Your task to perform on an android device: Open Maps and search for coffee Image 0: 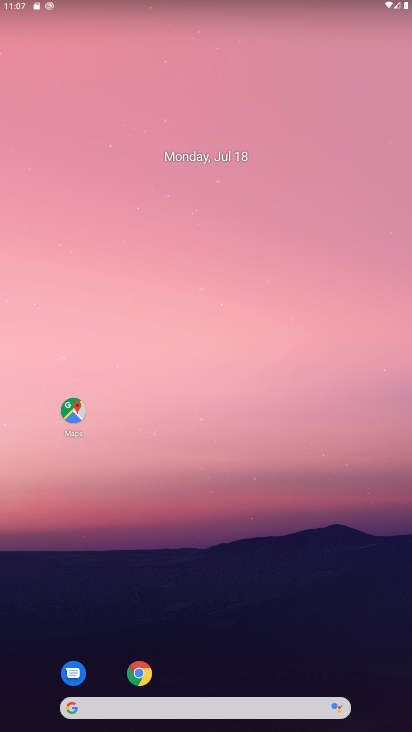
Step 0: click (67, 422)
Your task to perform on an android device: Open Maps and search for coffee Image 1: 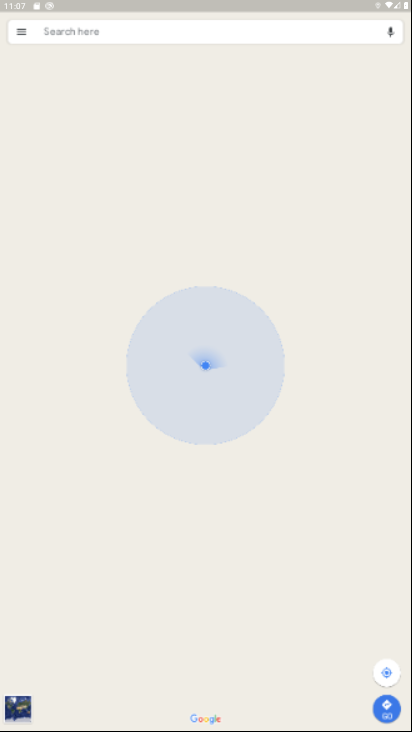
Step 1: click (171, 27)
Your task to perform on an android device: Open Maps and search for coffee Image 2: 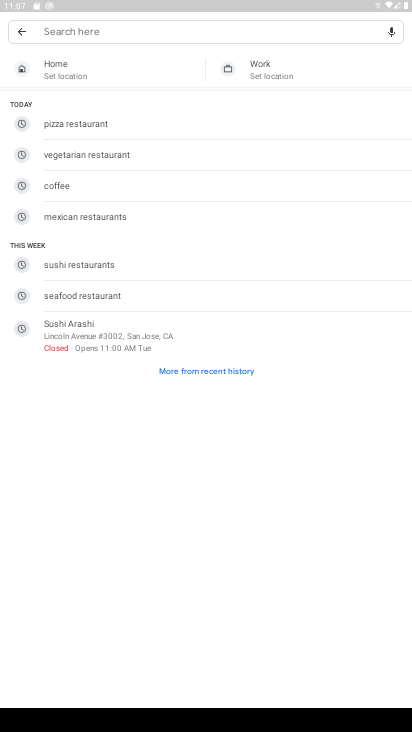
Step 2: click (171, 27)
Your task to perform on an android device: Open Maps and search for coffee Image 3: 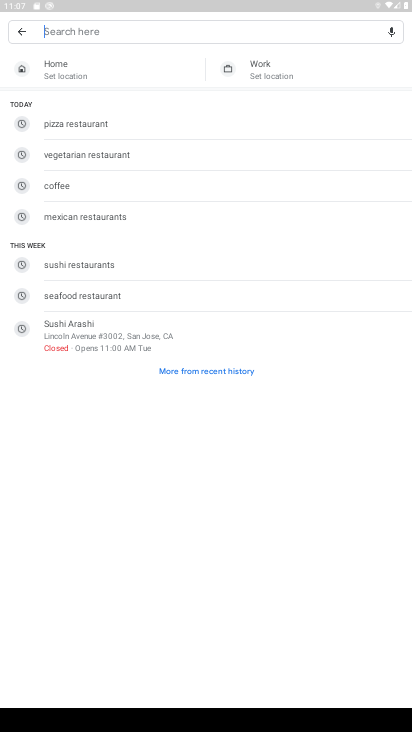
Step 3: click (72, 190)
Your task to perform on an android device: Open Maps and search for coffee Image 4: 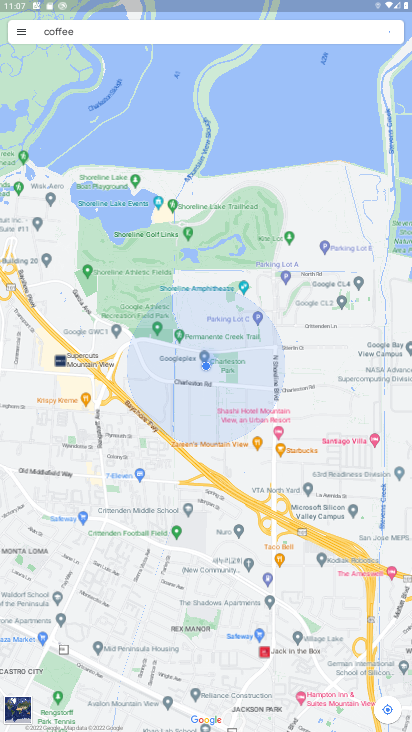
Step 4: task complete